Your task to perform on an android device: Go to Maps Image 0: 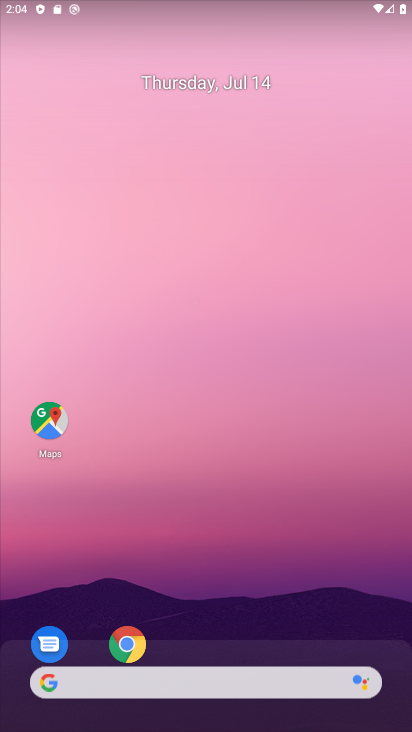
Step 0: click (45, 428)
Your task to perform on an android device: Go to Maps Image 1: 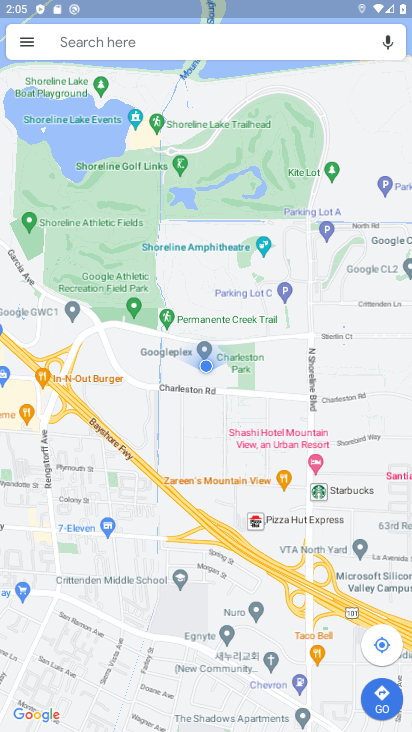
Step 1: task complete